Your task to perform on an android device: Open Youtube and go to "Your channel" Image 0: 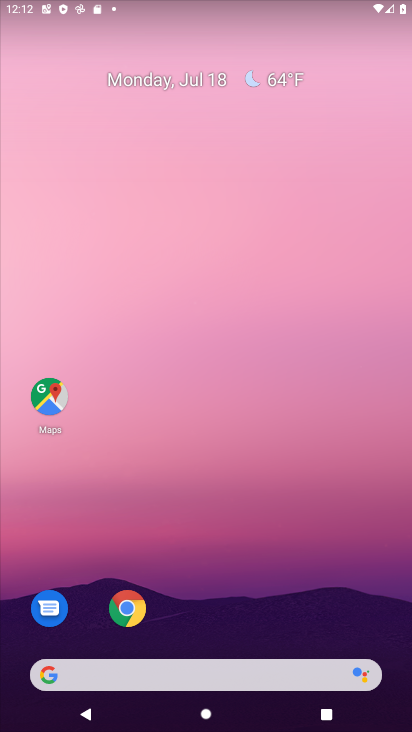
Step 0: drag from (373, 640) to (219, 51)
Your task to perform on an android device: Open Youtube and go to "Your channel" Image 1: 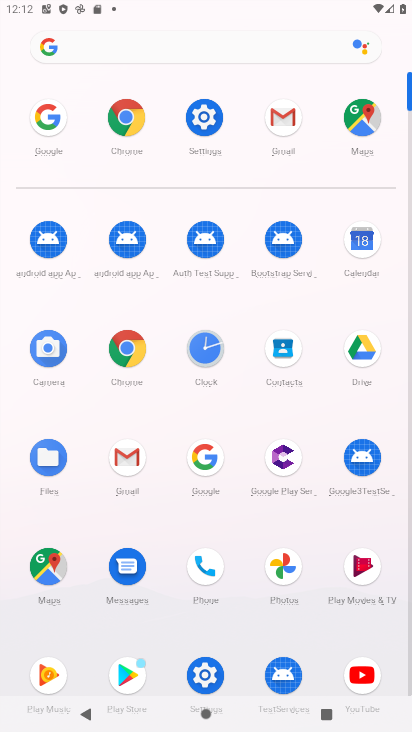
Step 1: click (368, 676)
Your task to perform on an android device: Open Youtube and go to "Your channel" Image 2: 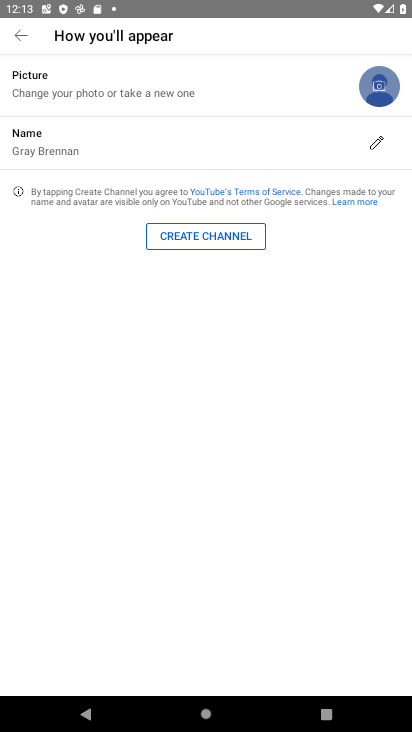
Step 2: task complete